Your task to perform on an android device: check data usage Image 0: 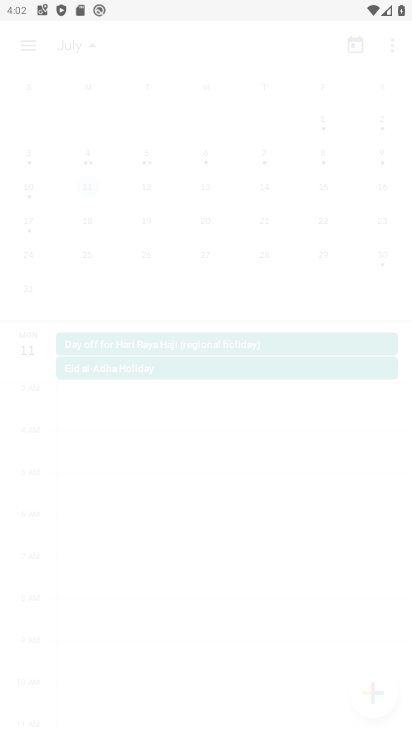
Step 0: drag from (207, 639) to (299, 144)
Your task to perform on an android device: check data usage Image 1: 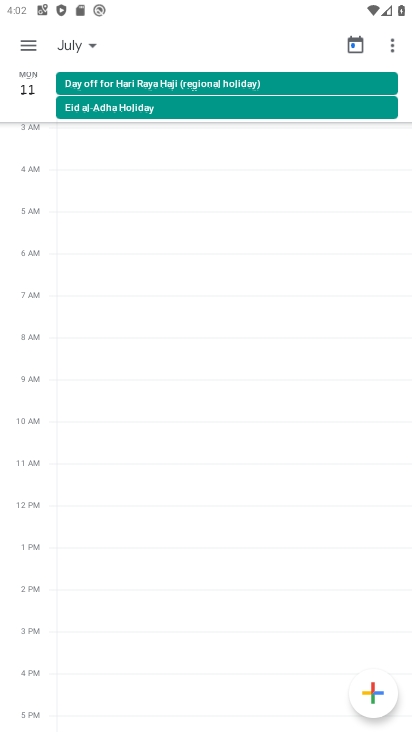
Step 1: press back button
Your task to perform on an android device: check data usage Image 2: 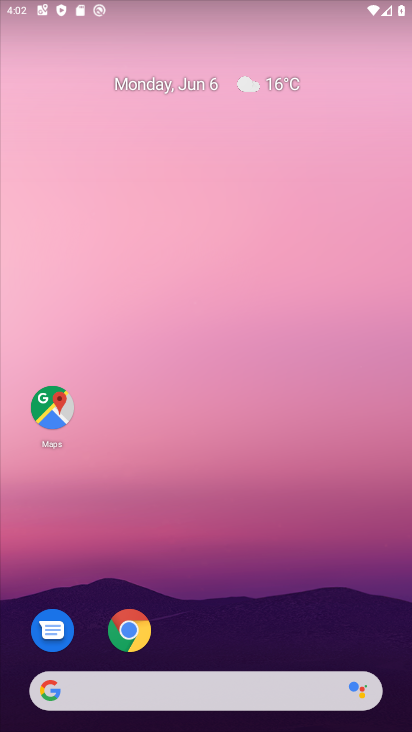
Step 2: drag from (249, 587) to (306, 90)
Your task to perform on an android device: check data usage Image 3: 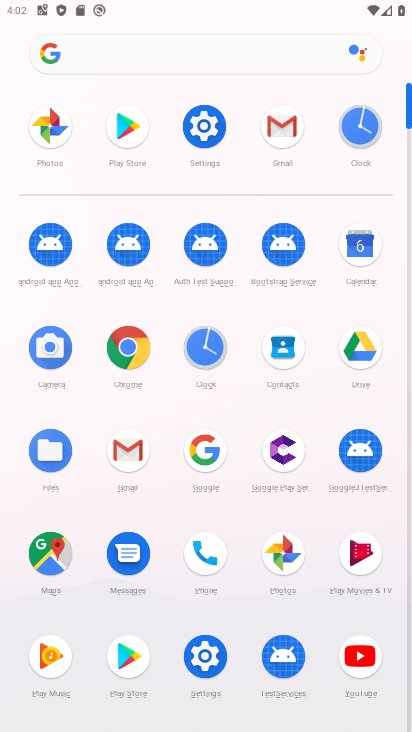
Step 3: click (200, 111)
Your task to perform on an android device: check data usage Image 4: 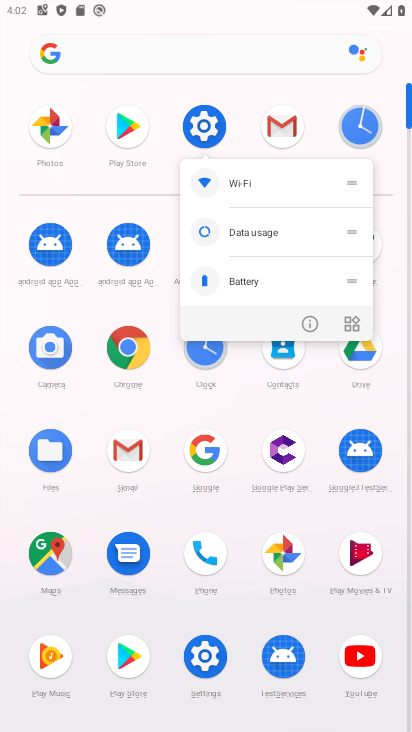
Step 4: click (204, 115)
Your task to perform on an android device: check data usage Image 5: 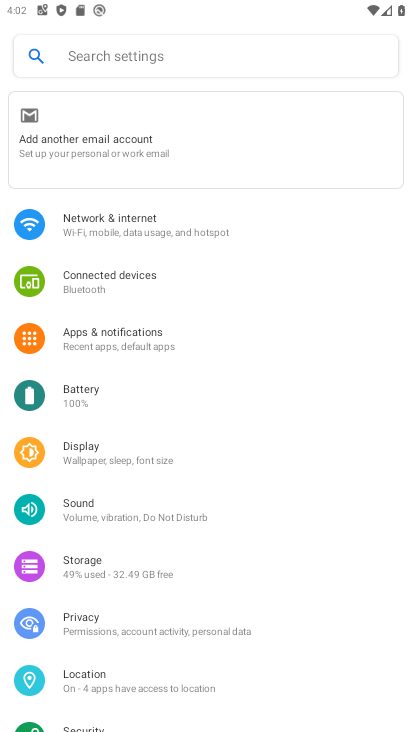
Step 5: click (140, 224)
Your task to perform on an android device: check data usage Image 6: 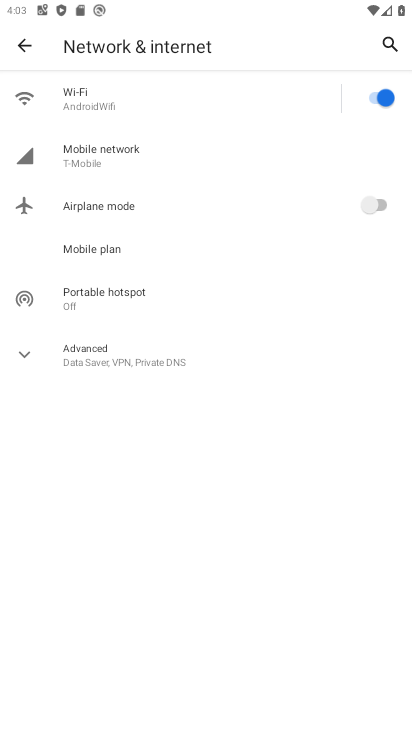
Step 6: click (123, 150)
Your task to perform on an android device: check data usage Image 7: 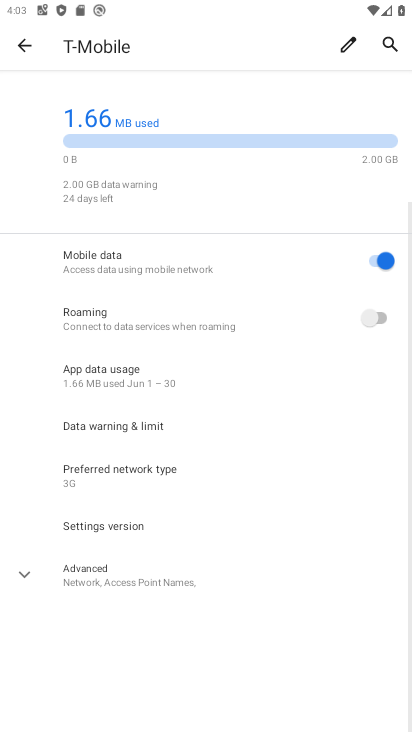
Step 7: click (159, 367)
Your task to perform on an android device: check data usage Image 8: 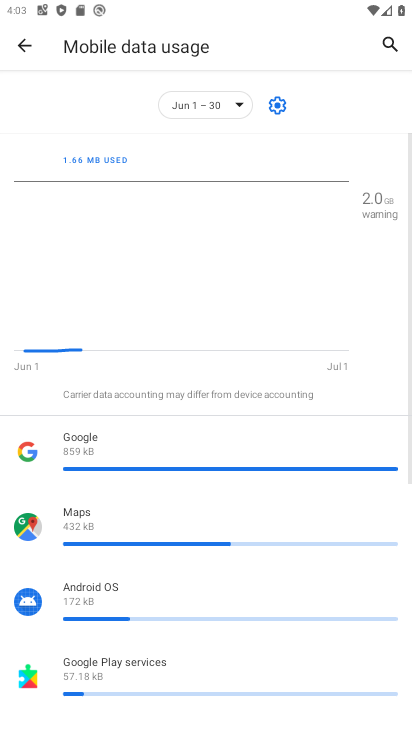
Step 8: task complete